Your task to perform on an android device: allow cookies in the chrome app Image 0: 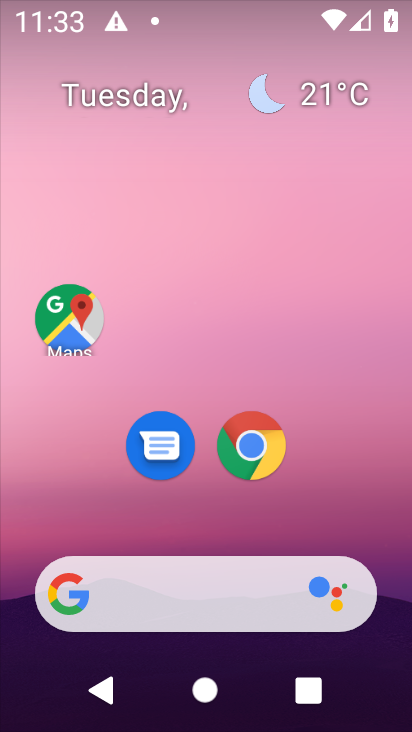
Step 0: click (245, 411)
Your task to perform on an android device: allow cookies in the chrome app Image 1: 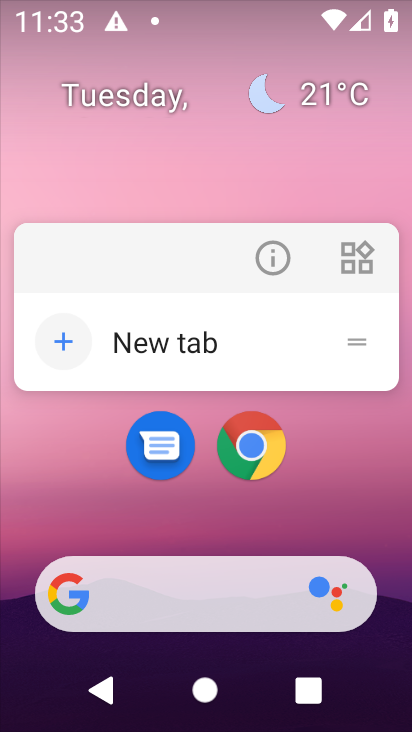
Step 1: click (253, 439)
Your task to perform on an android device: allow cookies in the chrome app Image 2: 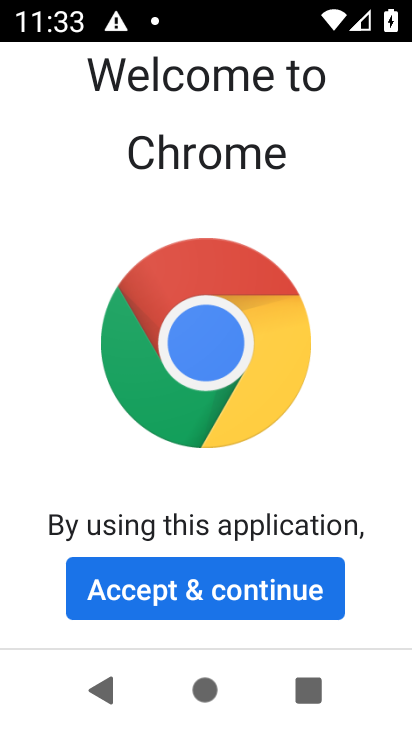
Step 2: click (148, 596)
Your task to perform on an android device: allow cookies in the chrome app Image 3: 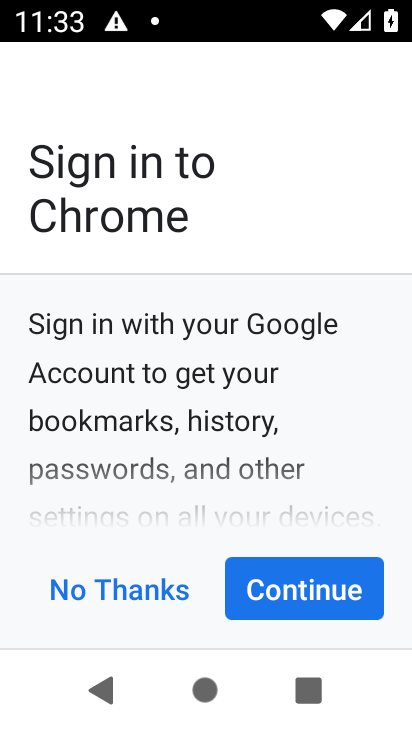
Step 3: click (283, 599)
Your task to perform on an android device: allow cookies in the chrome app Image 4: 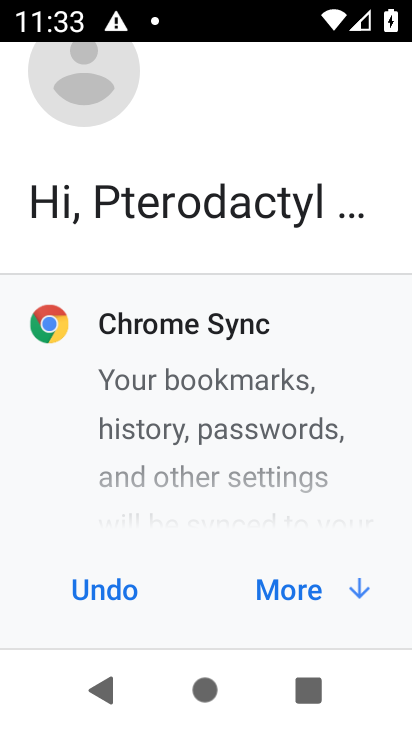
Step 4: click (293, 599)
Your task to perform on an android device: allow cookies in the chrome app Image 5: 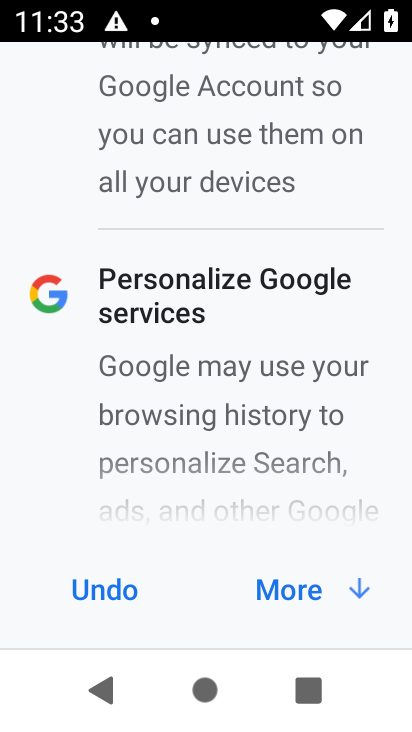
Step 5: click (305, 590)
Your task to perform on an android device: allow cookies in the chrome app Image 6: 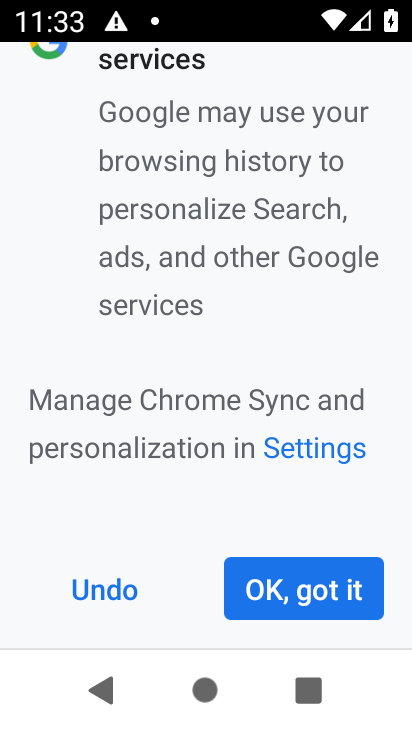
Step 6: click (305, 590)
Your task to perform on an android device: allow cookies in the chrome app Image 7: 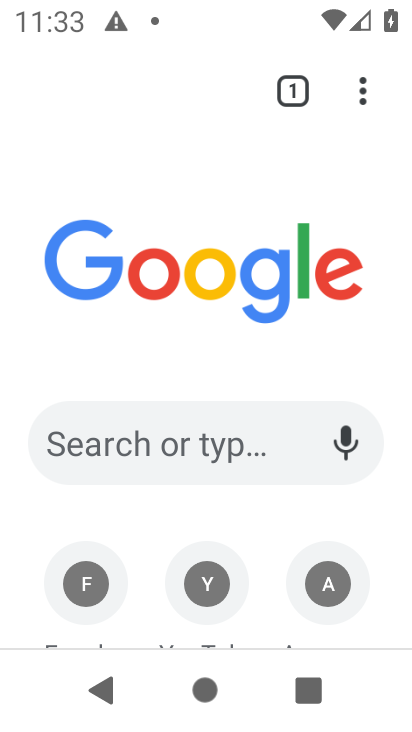
Step 7: drag from (360, 87) to (106, 218)
Your task to perform on an android device: allow cookies in the chrome app Image 8: 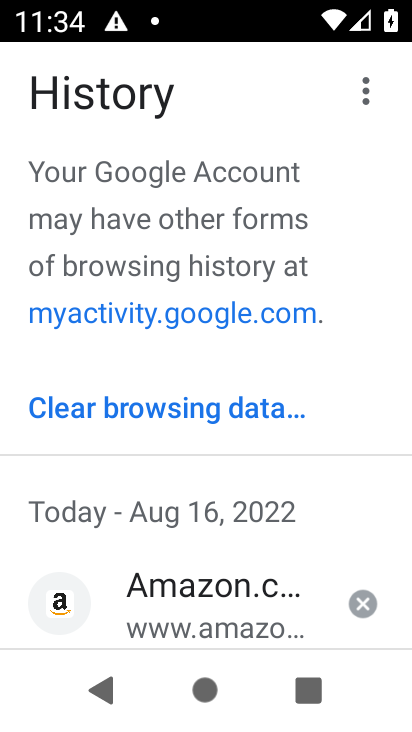
Step 8: click (202, 414)
Your task to perform on an android device: allow cookies in the chrome app Image 9: 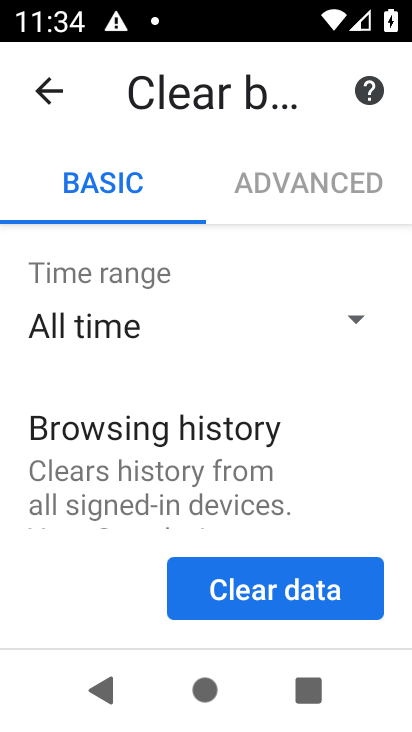
Step 9: press back button
Your task to perform on an android device: allow cookies in the chrome app Image 10: 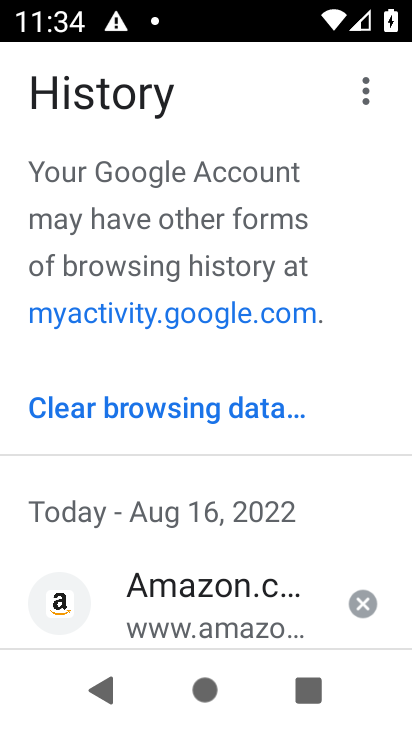
Step 10: press back button
Your task to perform on an android device: allow cookies in the chrome app Image 11: 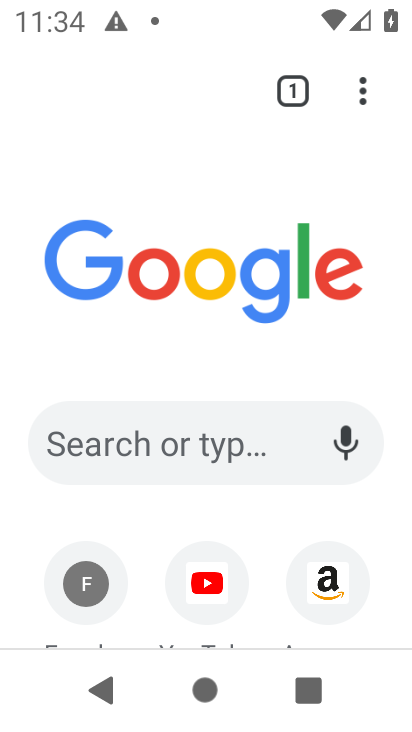
Step 11: drag from (348, 83) to (163, 478)
Your task to perform on an android device: allow cookies in the chrome app Image 12: 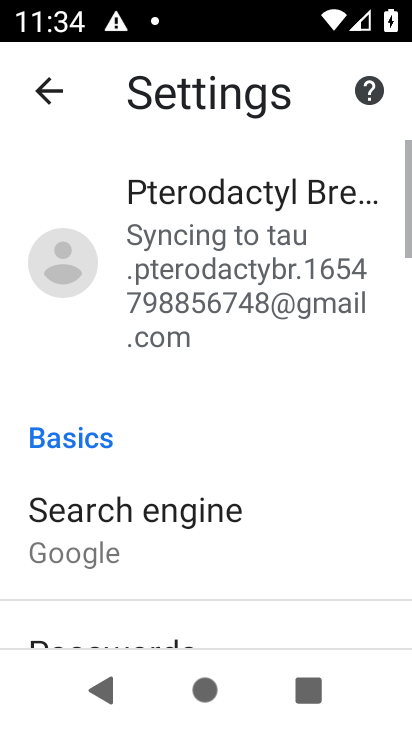
Step 12: drag from (152, 615) to (310, 47)
Your task to perform on an android device: allow cookies in the chrome app Image 13: 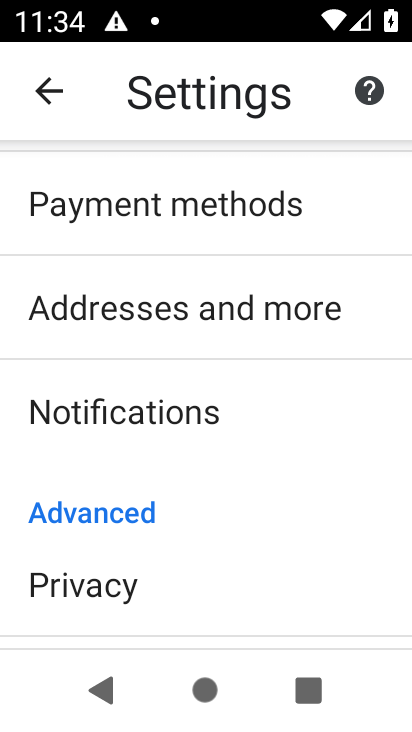
Step 13: drag from (170, 611) to (289, 109)
Your task to perform on an android device: allow cookies in the chrome app Image 14: 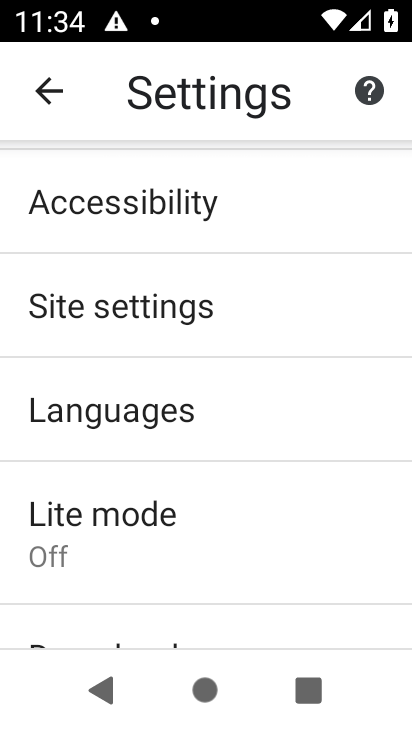
Step 14: click (155, 303)
Your task to perform on an android device: allow cookies in the chrome app Image 15: 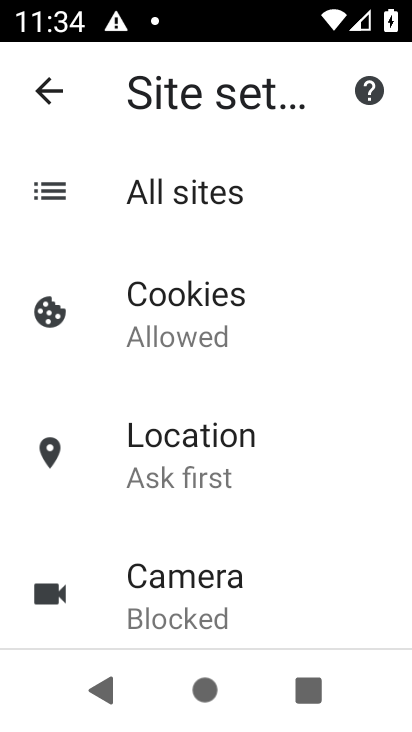
Step 15: click (171, 308)
Your task to perform on an android device: allow cookies in the chrome app Image 16: 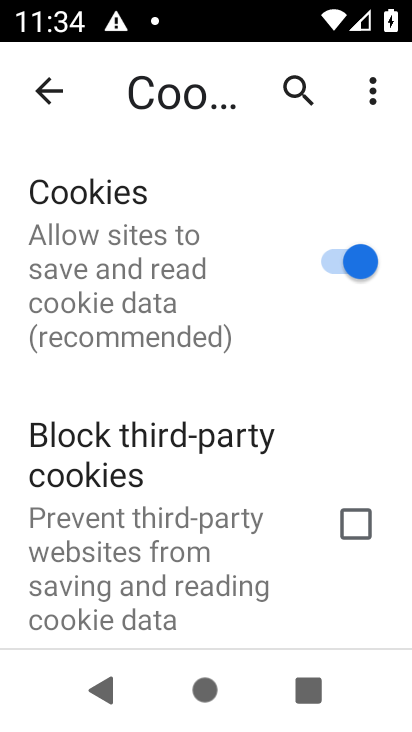
Step 16: task complete